Your task to perform on an android device: Go to calendar. Show me events next week Image 0: 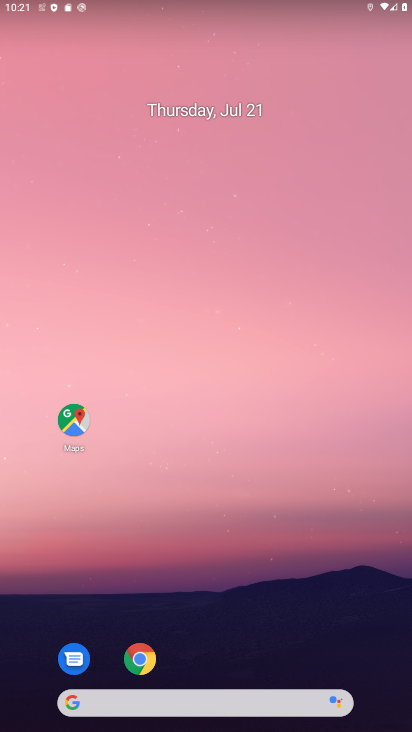
Step 0: drag from (234, 678) to (20, 13)
Your task to perform on an android device: Go to calendar. Show me events next week Image 1: 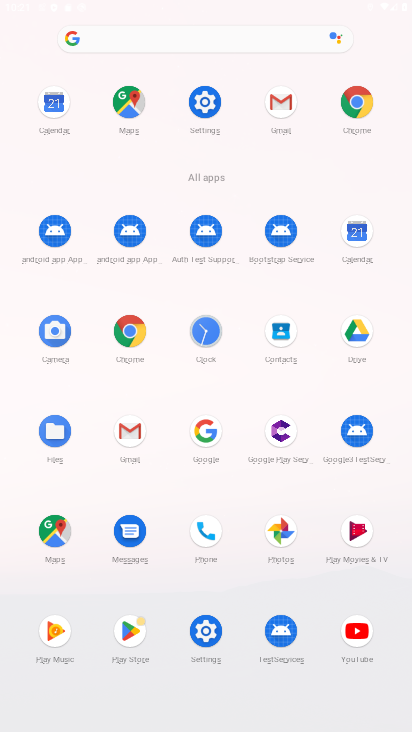
Step 1: click (352, 228)
Your task to perform on an android device: Go to calendar. Show me events next week Image 2: 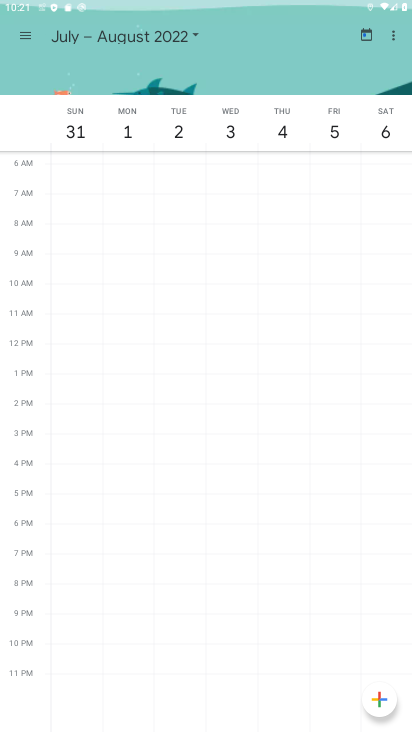
Step 2: click (364, 31)
Your task to perform on an android device: Go to calendar. Show me events next week Image 3: 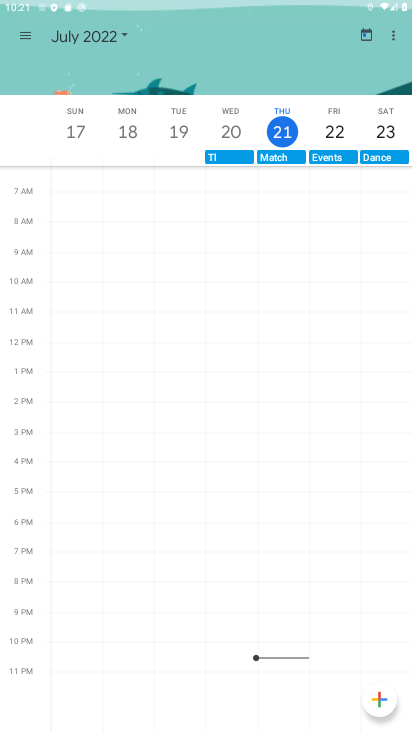
Step 3: task complete